Your task to perform on an android device: Open Google Chrome and open the bookmarks view Image 0: 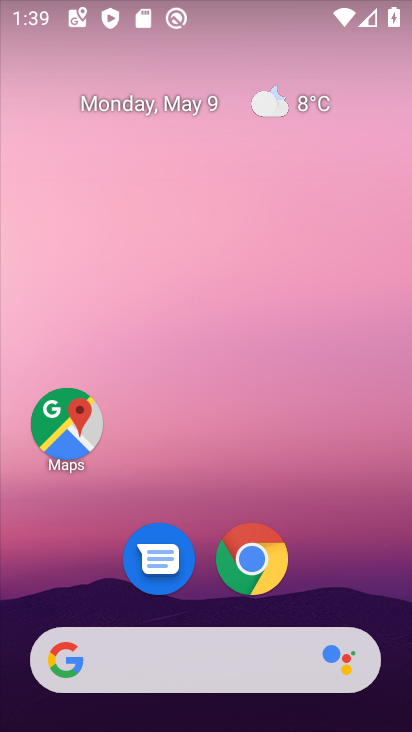
Step 0: click (242, 563)
Your task to perform on an android device: Open Google Chrome and open the bookmarks view Image 1: 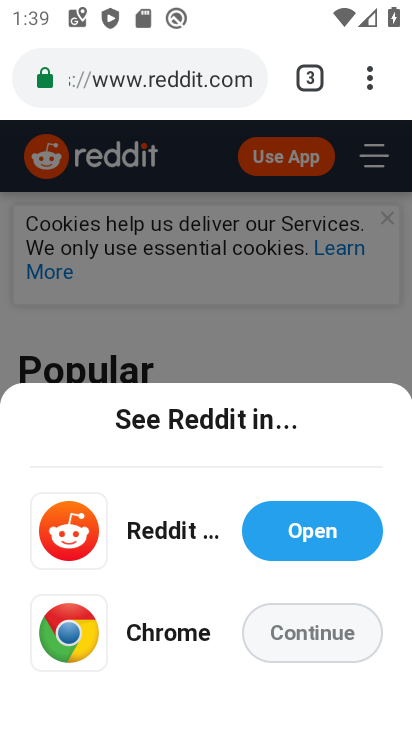
Step 1: click (368, 80)
Your task to perform on an android device: Open Google Chrome and open the bookmarks view Image 2: 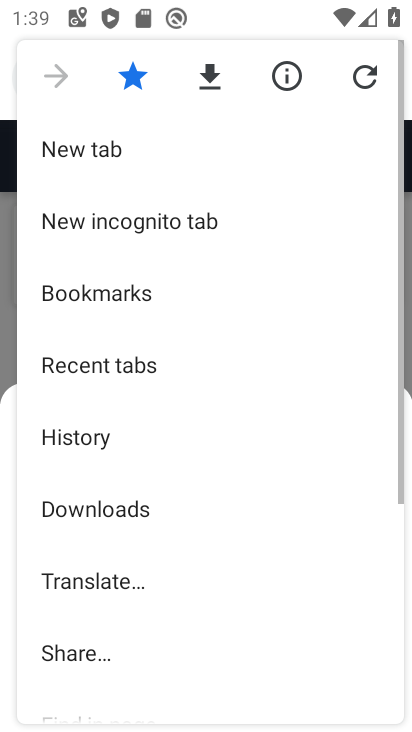
Step 2: click (368, 80)
Your task to perform on an android device: Open Google Chrome and open the bookmarks view Image 3: 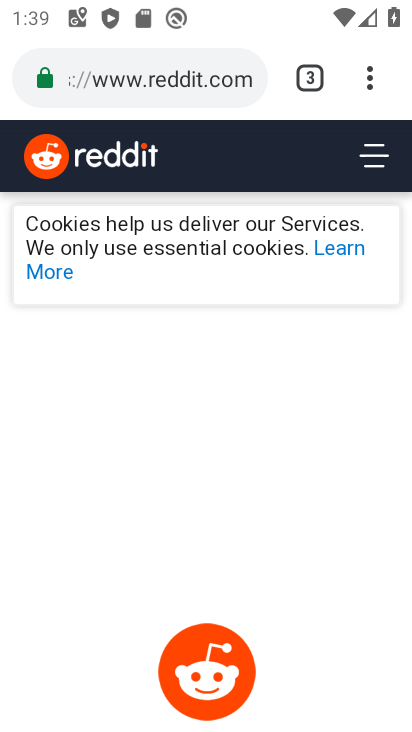
Step 3: click (368, 75)
Your task to perform on an android device: Open Google Chrome and open the bookmarks view Image 4: 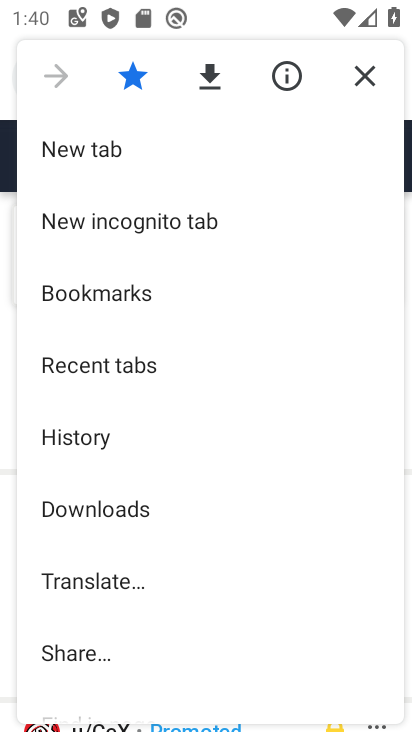
Step 4: click (101, 297)
Your task to perform on an android device: Open Google Chrome and open the bookmarks view Image 5: 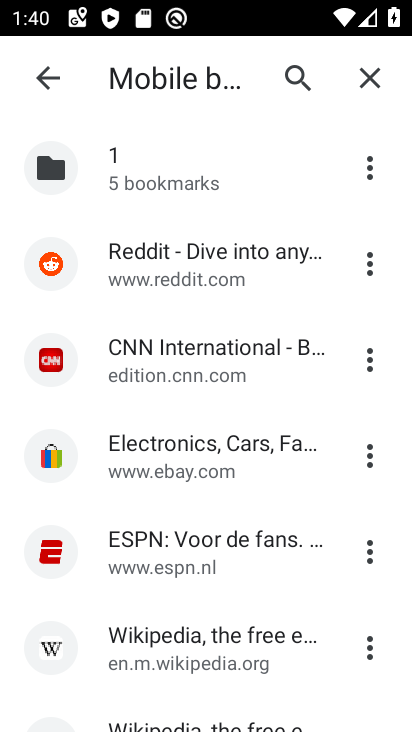
Step 5: click (371, 163)
Your task to perform on an android device: Open Google Chrome and open the bookmarks view Image 6: 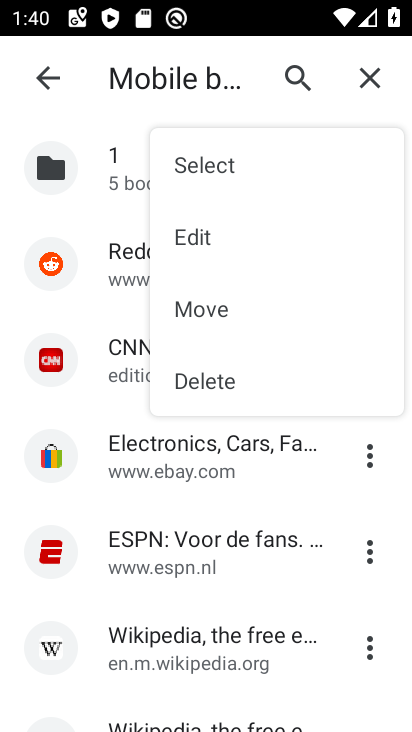
Step 6: click (211, 249)
Your task to perform on an android device: Open Google Chrome and open the bookmarks view Image 7: 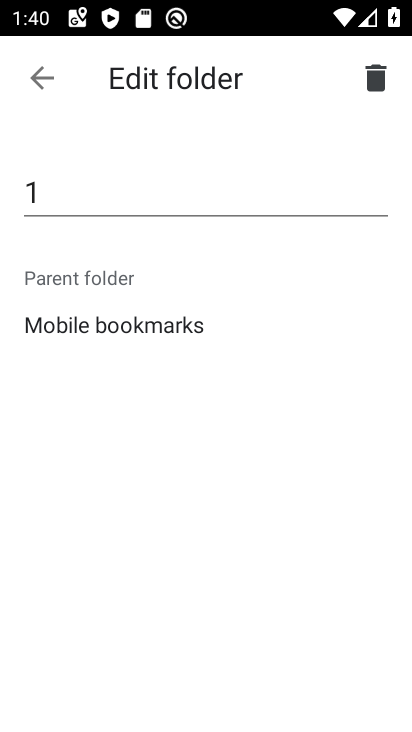
Step 7: task complete